Your task to perform on an android device: Do I have any events this weekend? Image 0: 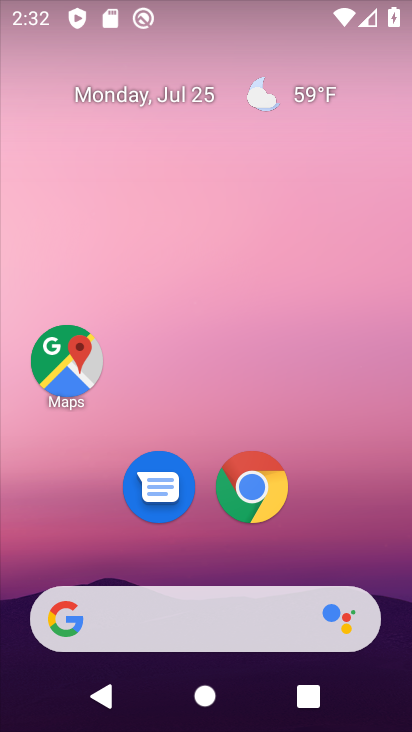
Step 0: drag from (198, 488) to (301, 17)
Your task to perform on an android device: Do I have any events this weekend? Image 1: 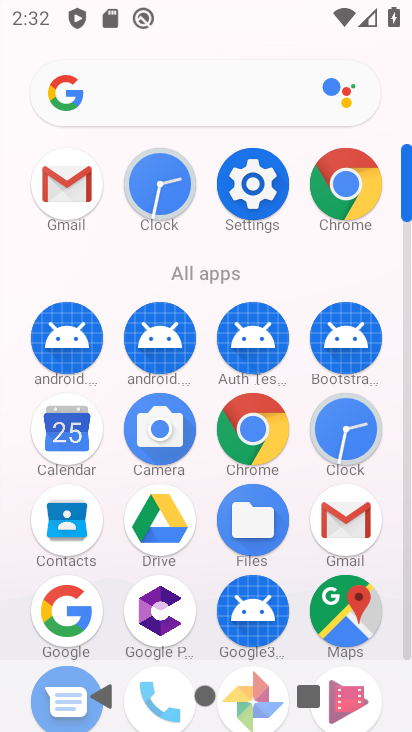
Step 1: click (65, 437)
Your task to perform on an android device: Do I have any events this weekend? Image 2: 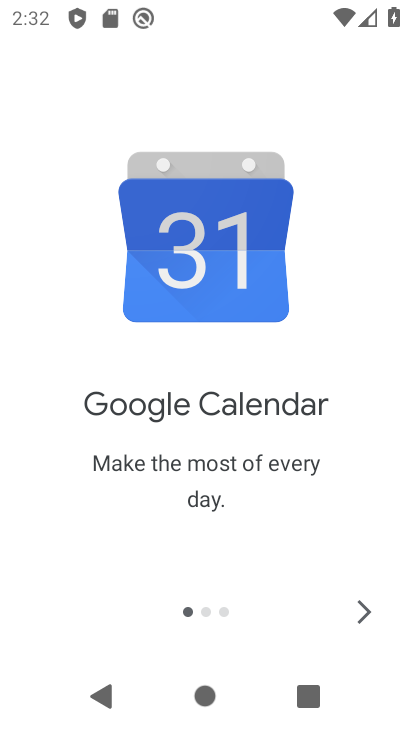
Step 2: click (360, 605)
Your task to perform on an android device: Do I have any events this weekend? Image 3: 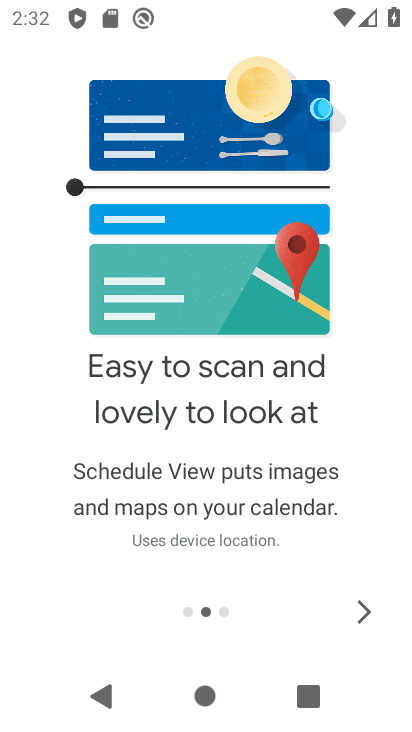
Step 3: click (371, 614)
Your task to perform on an android device: Do I have any events this weekend? Image 4: 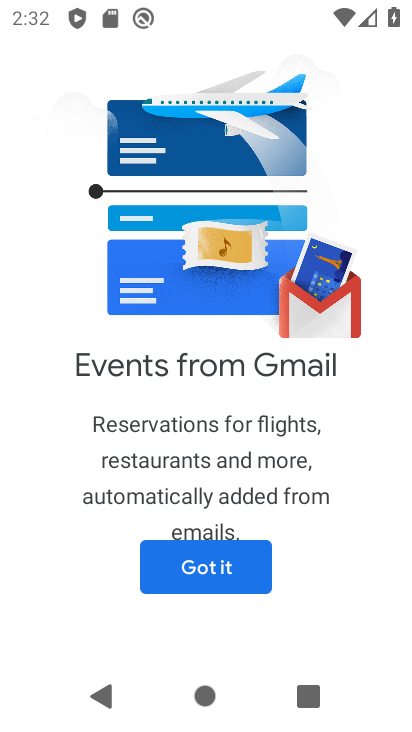
Step 4: click (362, 602)
Your task to perform on an android device: Do I have any events this weekend? Image 5: 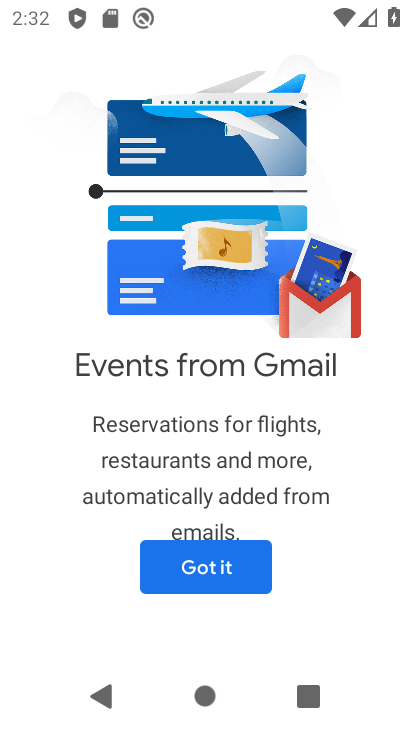
Step 5: click (259, 573)
Your task to perform on an android device: Do I have any events this weekend? Image 6: 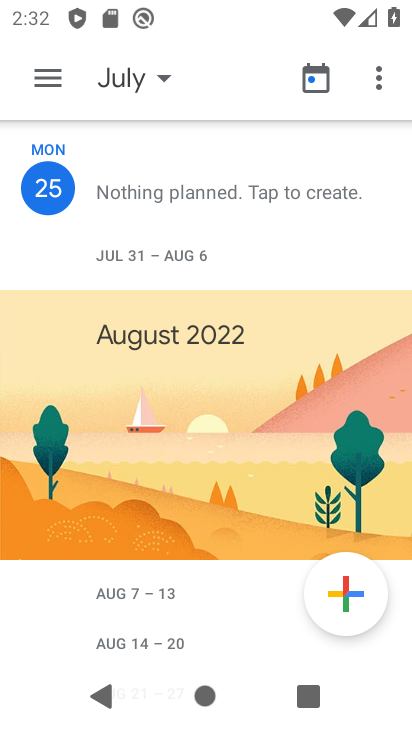
Step 6: drag from (169, 341) to (214, 498)
Your task to perform on an android device: Do I have any events this weekend? Image 7: 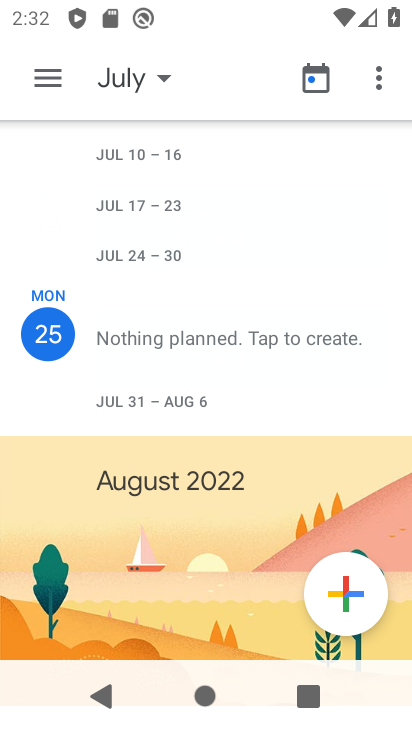
Step 7: click (154, 75)
Your task to perform on an android device: Do I have any events this weekend? Image 8: 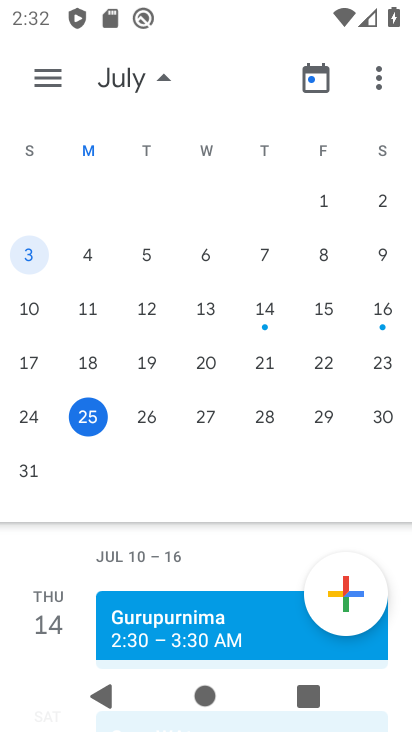
Step 8: click (384, 407)
Your task to perform on an android device: Do I have any events this weekend? Image 9: 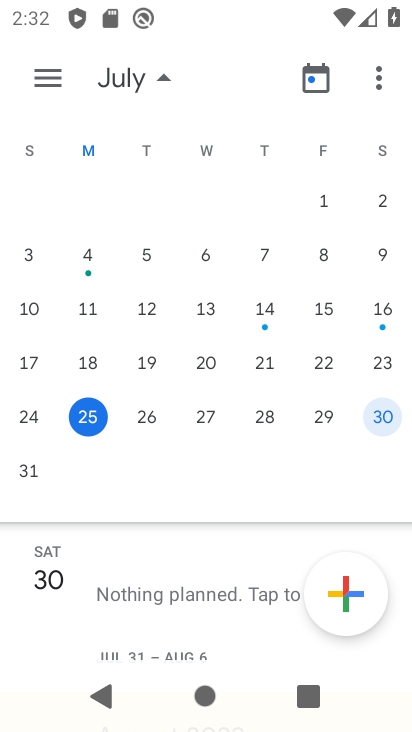
Step 9: task complete